Your task to perform on an android device: toggle translation in the chrome app Image 0: 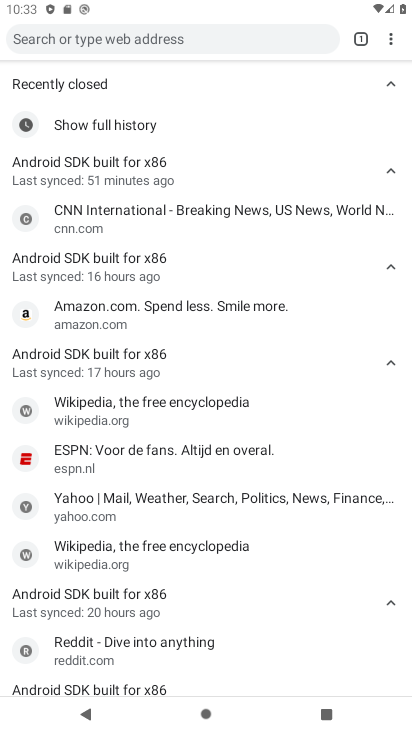
Step 0: click (389, 41)
Your task to perform on an android device: toggle translation in the chrome app Image 1: 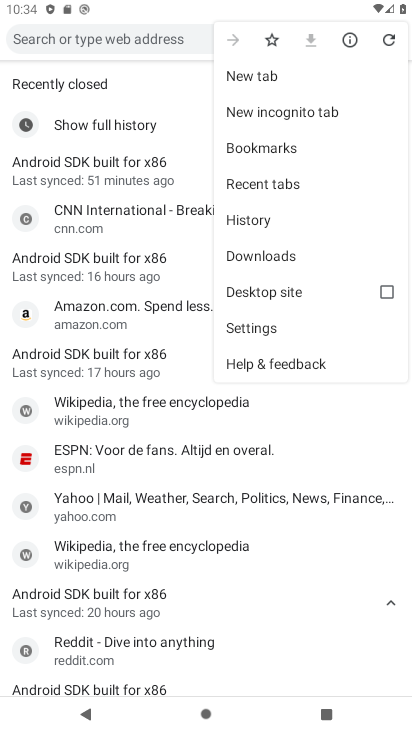
Step 1: click (237, 329)
Your task to perform on an android device: toggle translation in the chrome app Image 2: 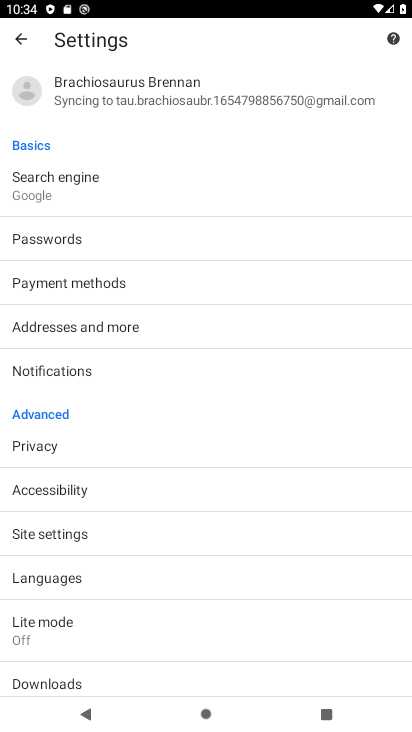
Step 2: drag from (62, 537) to (120, 245)
Your task to perform on an android device: toggle translation in the chrome app Image 3: 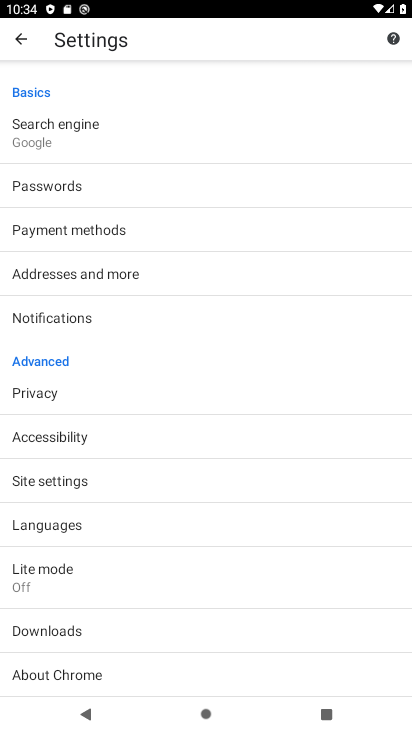
Step 3: click (63, 530)
Your task to perform on an android device: toggle translation in the chrome app Image 4: 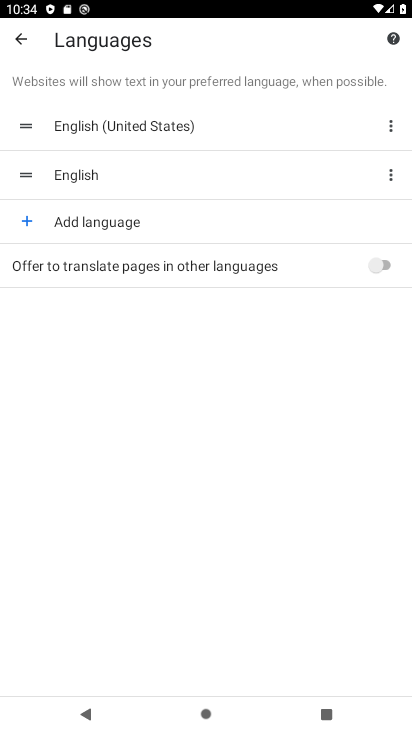
Step 4: click (343, 260)
Your task to perform on an android device: toggle translation in the chrome app Image 5: 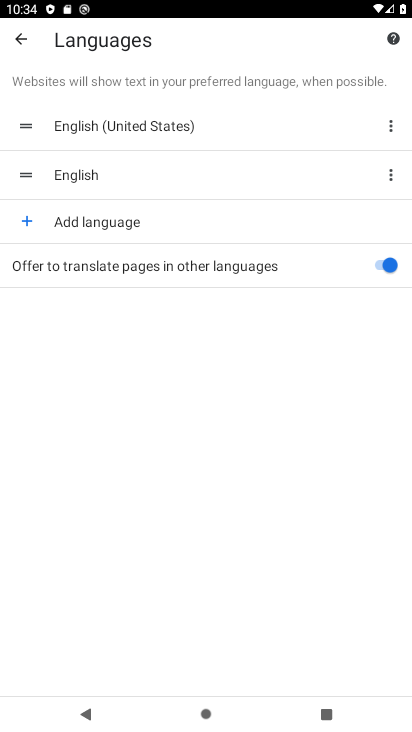
Step 5: task complete